Your task to perform on an android device: Open battery settings Image 0: 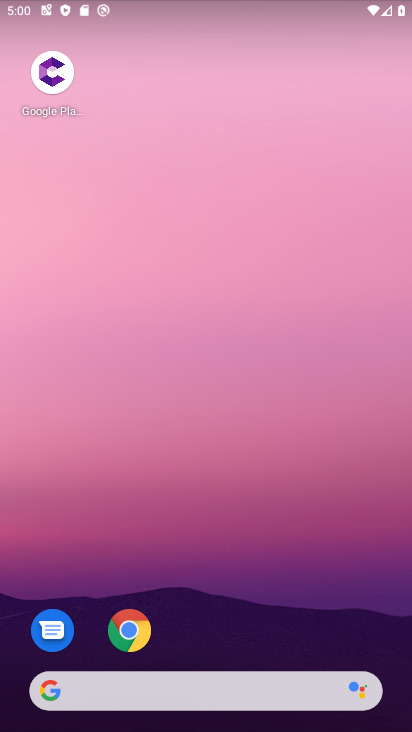
Step 0: drag from (252, 602) to (201, 26)
Your task to perform on an android device: Open battery settings Image 1: 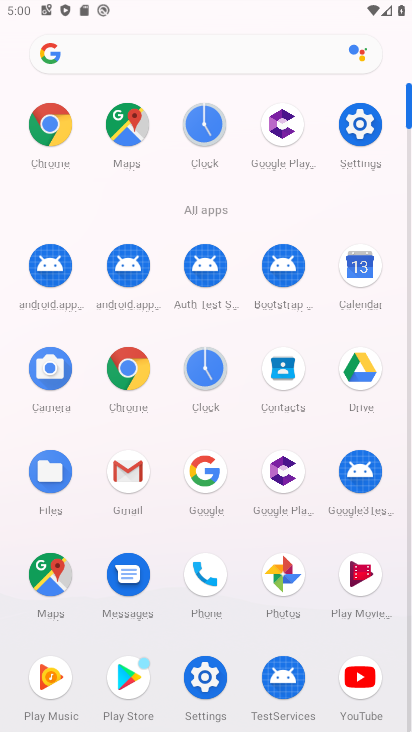
Step 1: click (360, 127)
Your task to perform on an android device: Open battery settings Image 2: 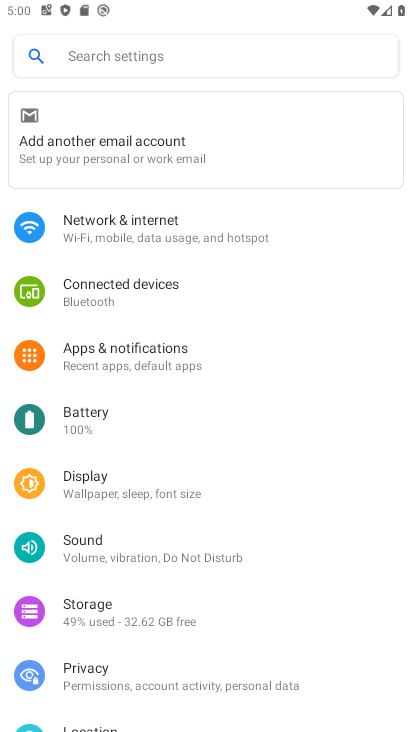
Step 2: click (101, 428)
Your task to perform on an android device: Open battery settings Image 3: 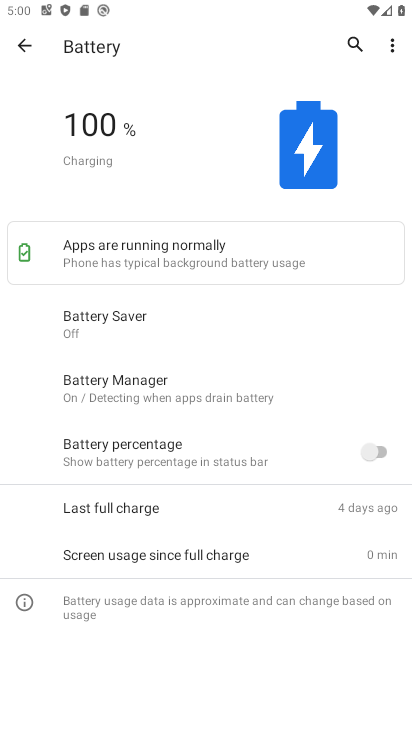
Step 3: click (394, 41)
Your task to perform on an android device: Open battery settings Image 4: 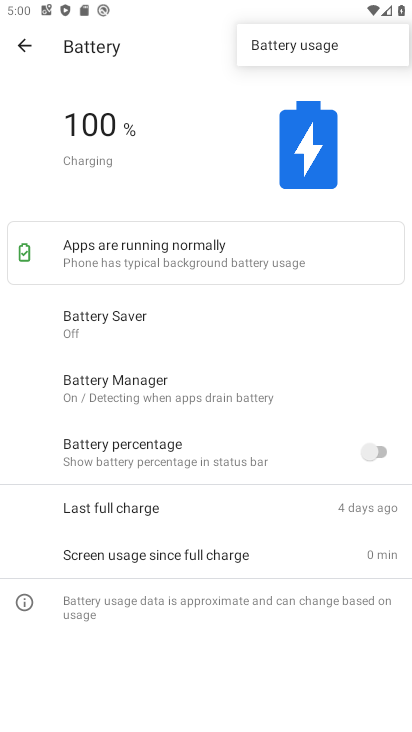
Step 4: click (229, 282)
Your task to perform on an android device: Open battery settings Image 5: 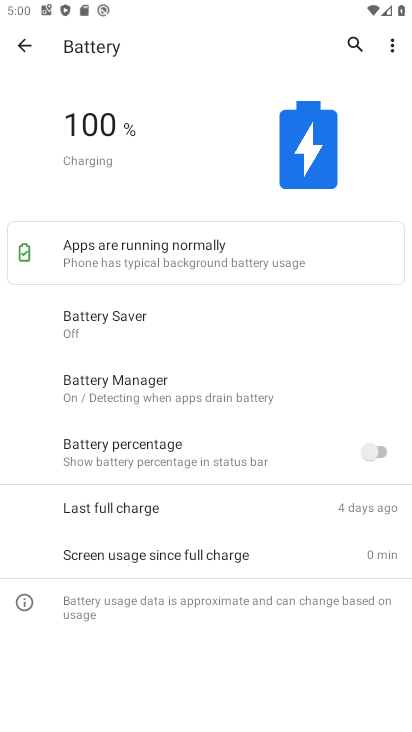
Step 5: task complete